Your task to perform on an android device: change the upload size in google photos Image 0: 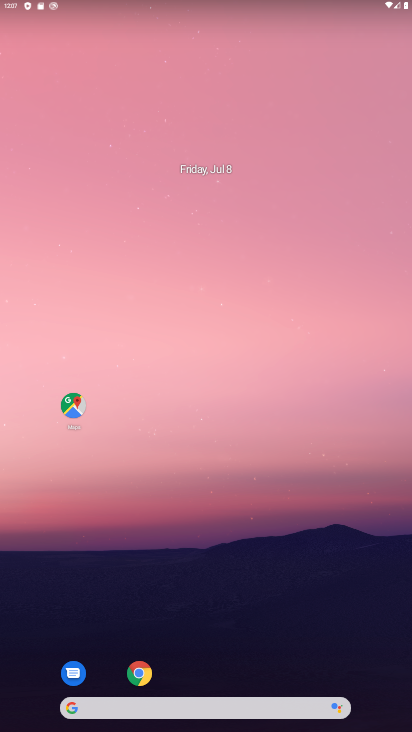
Step 0: drag from (240, 675) to (277, 123)
Your task to perform on an android device: change the upload size in google photos Image 1: 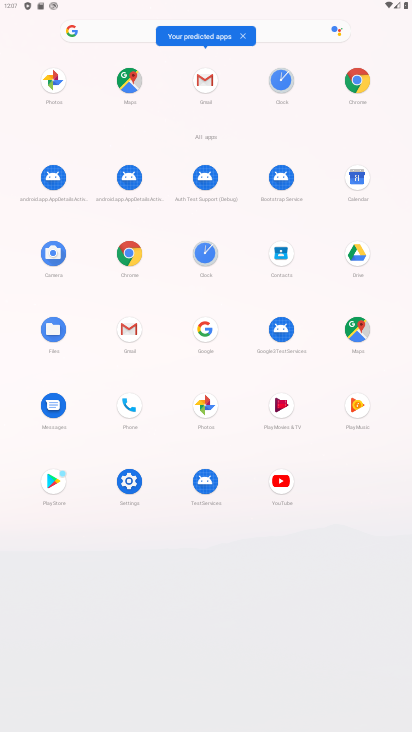
Step 1: click (209, 404)
Your task to perform on an android device: change the upload size in google photos Image 2: 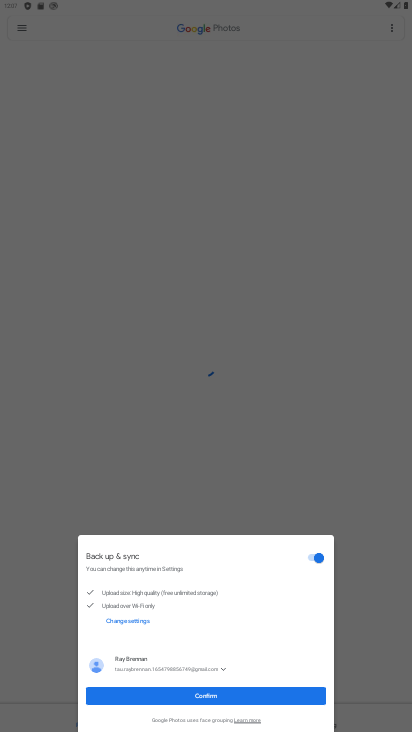
Step 2: click (204, 694)
Your task to perform on an android device: change the upload size in google photos Image 3: 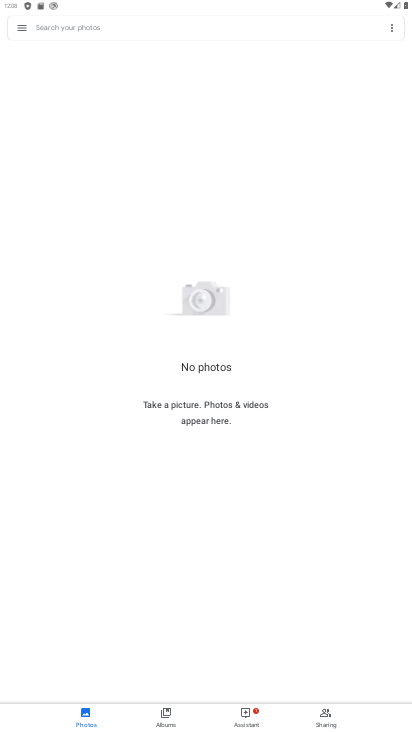
Step 3: click (388, 30)
Your task to perform on an android device: change the upload size in google photos Image 4: 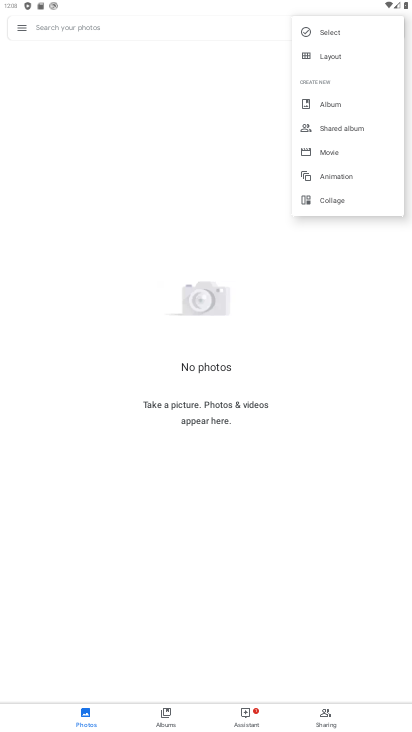
Step 4: click (280, 302)
Your task to perform on an android device: change the upload size in google photos Image 5: 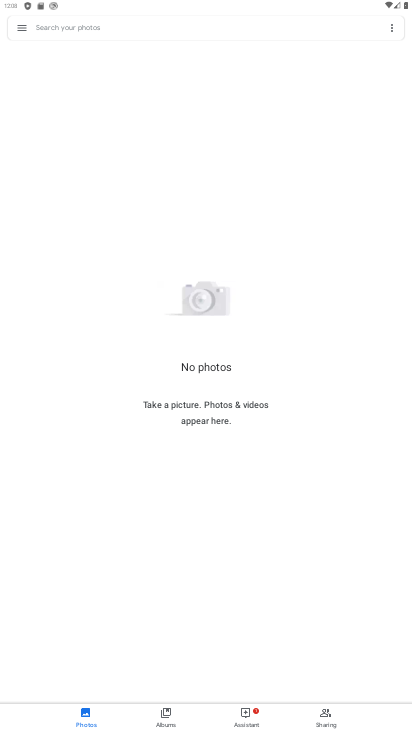
Step 5: click (20, 28)
Your task to perform on an android device: change the upload size in google photos Image 6: 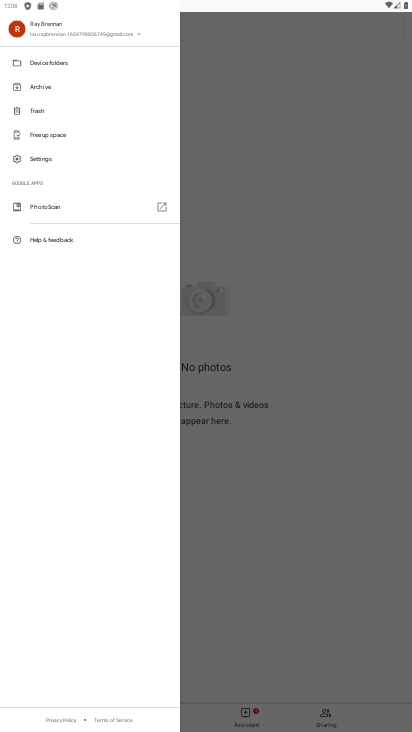
Step 6: click (40, 157)
Your task to perform on an android device: change the upload size in google photos Image 7: 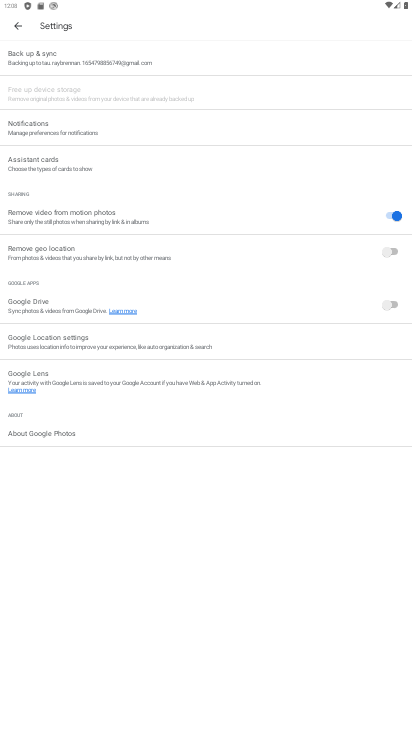
Step 7: click (92, 58)
Your task to perform on an android device: change the upload size in google photos Image 8: 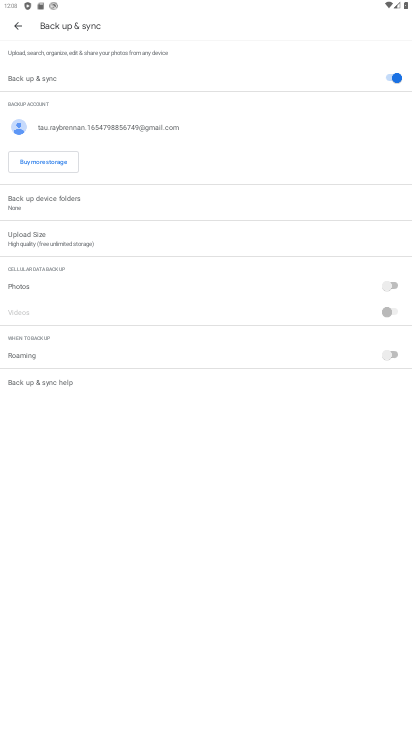
Step 8: click (78, 238)
Your task to perform on an android device: change the upload size in google photos Image 9: 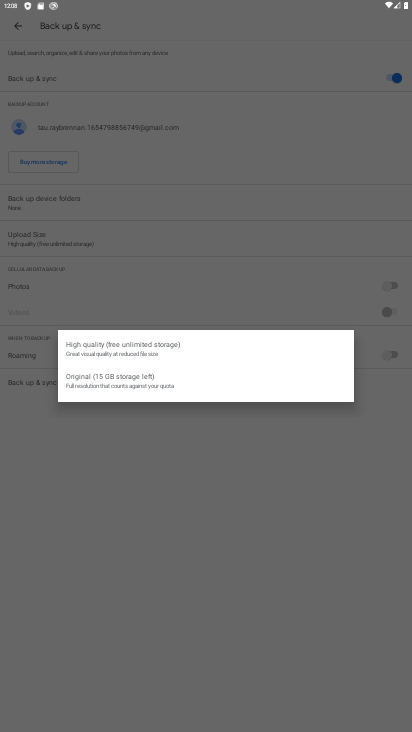
Step 9: click (129, 380)
Your task to perform on an android device: change the upload size in google photos Image 10: 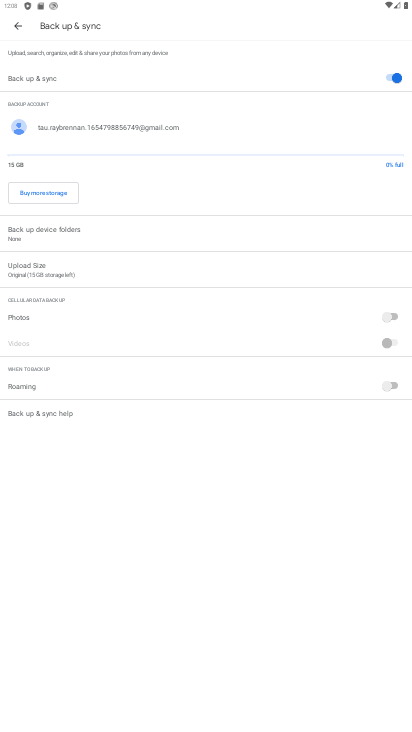
Step 10: task complete